Your task to perform on an android device: Open Youtube and go to "Your channel" Image 0: 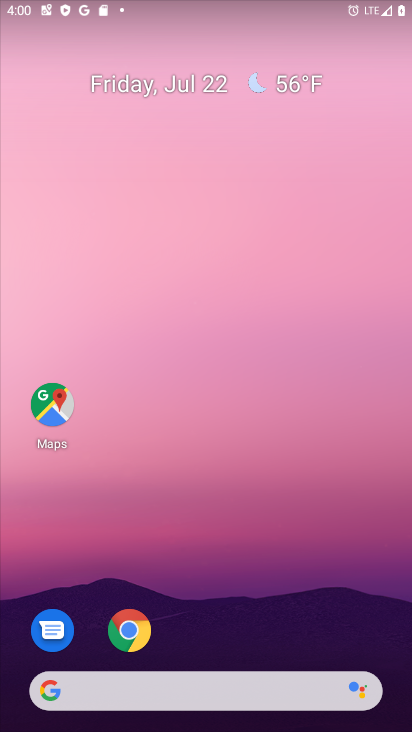
Step 0: drag from (211, 692) to (120, 214)
Your task to perform on an android device: Open Youtube and go to "Your channel" Image 1: 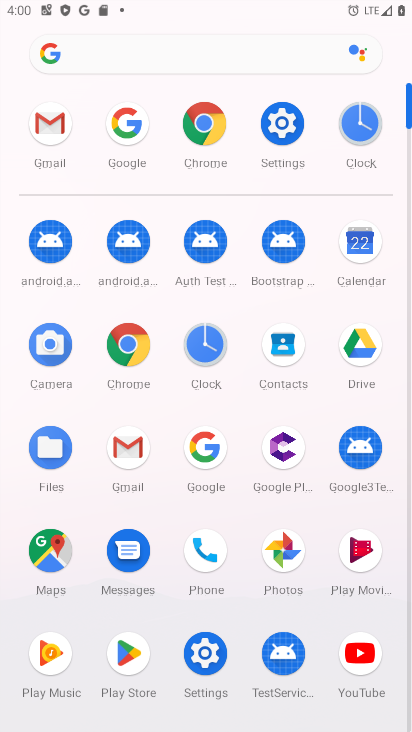
Step 1: click (355, 661)
Your task to perform on an android device: Open Youtube and go to "Your channel" Image 2: 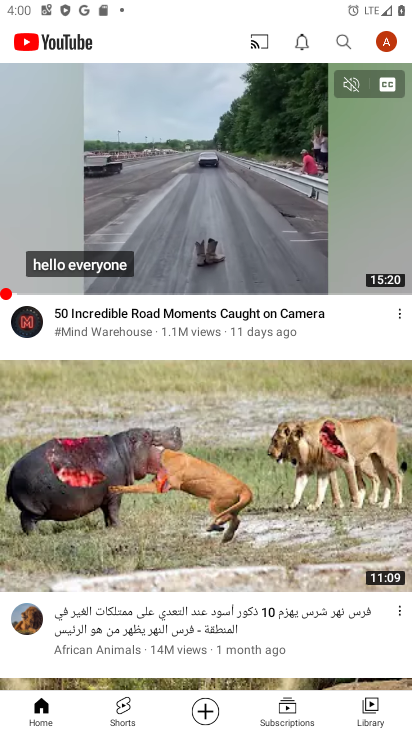
Step 2: click (398, 41)
Your task to perform on an android device: Open Youtube and go to "Your channel" Image 3: 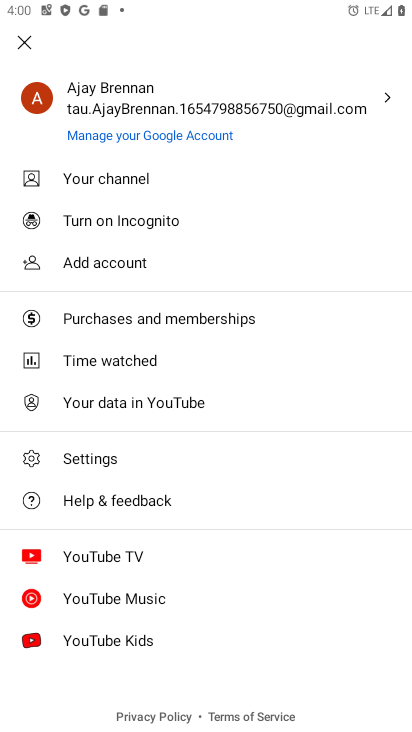
Step 3: click (147, 174)
Your task to perform on an android device: Open Youtube and go to "Your channel" Image 4: 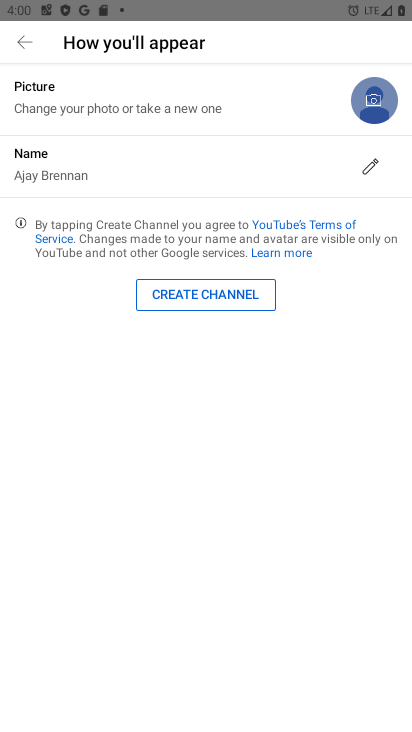
Step 4: task complete